Your task to perform on an android device: open app "Contacts" Image 0: 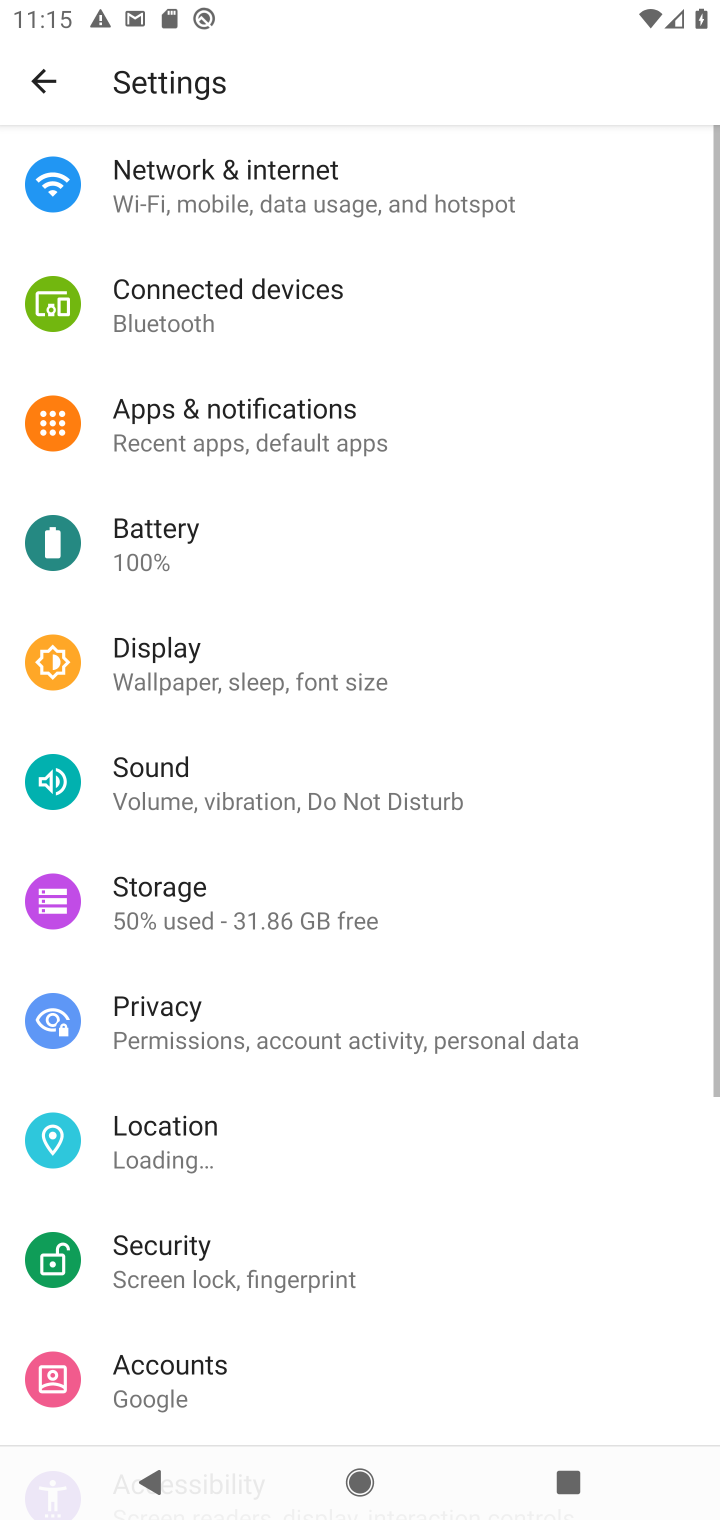
Step 0: press home button
Your task to perform on an android device: open app "Contacts" Image 1: 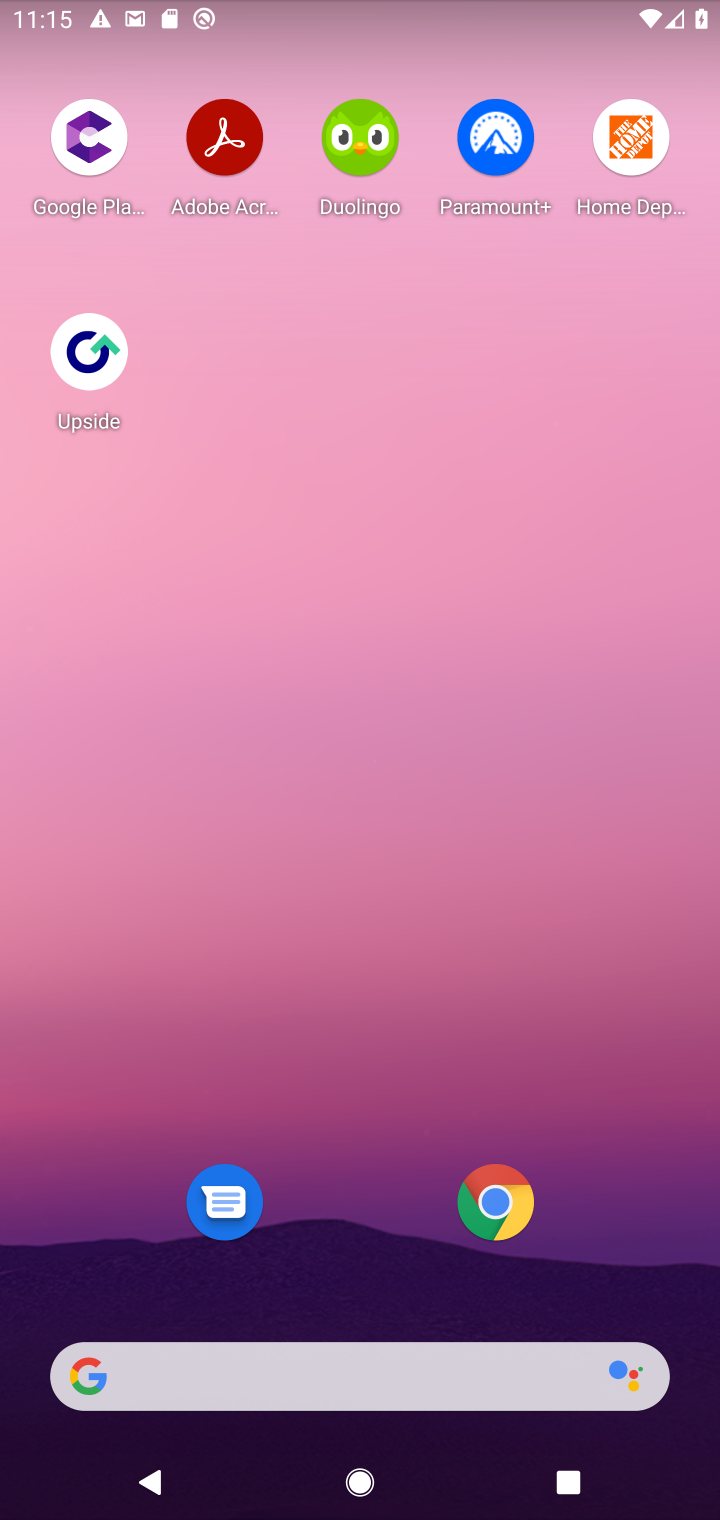
Step 1: drag from (365, 911) to (365, 135)
Your task to perform on an android device: open app "Contacts" Image 2: 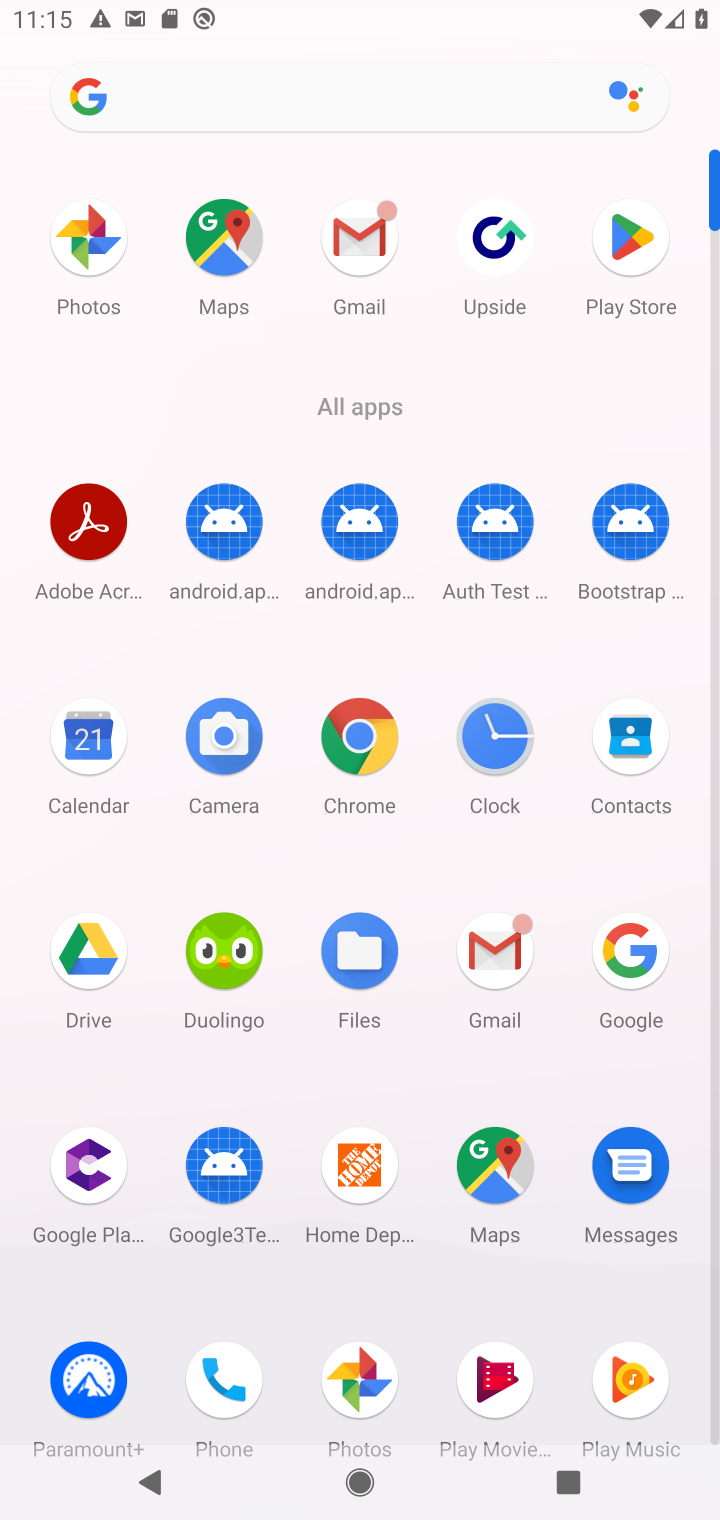
Step 2: click (624, 742)
Your task to perform on an android device: open app "Contacts" Image 3: 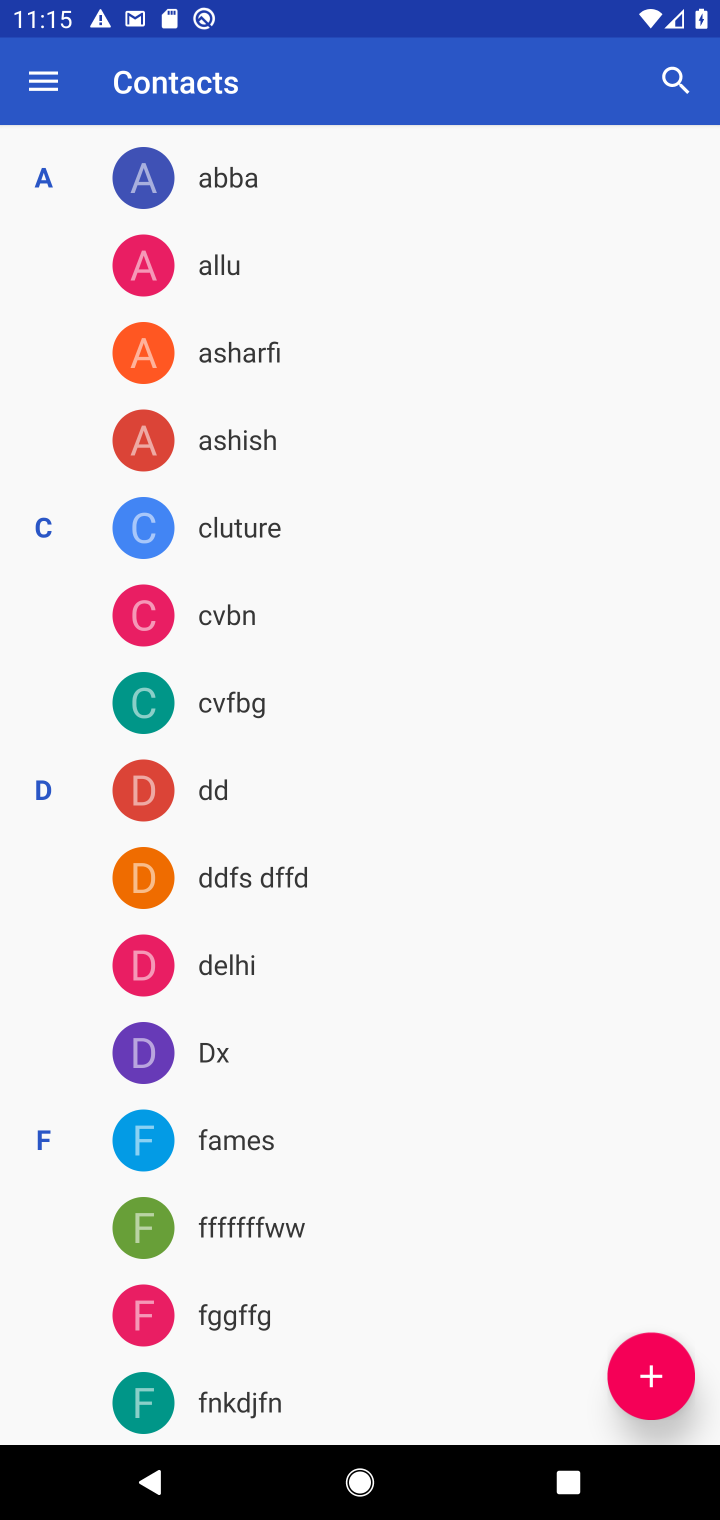
Step 3: task complete